Your task to perform on an android device: manage bookmarks in the chrome app Image 0: 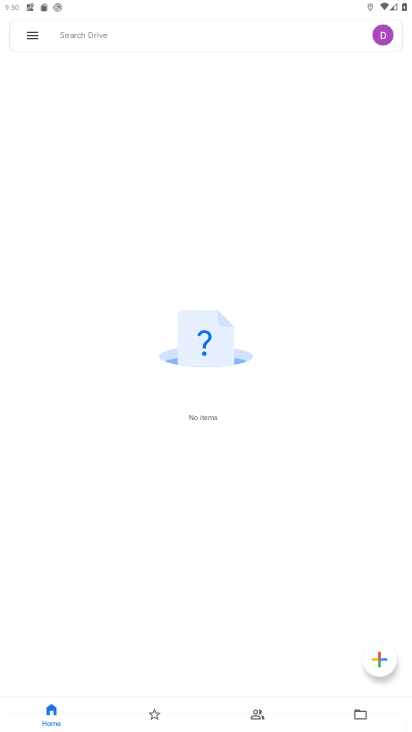
Step 0: press home button
Your task to perform on an android device: manage bookmarks in the chrome app Image 1: 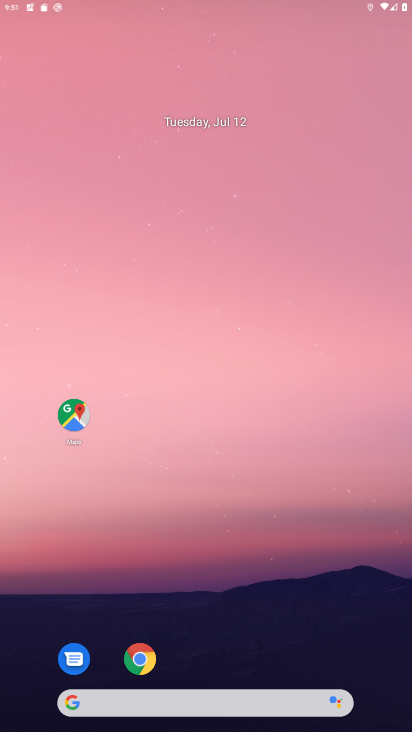
Step 1: drag from (235, 627) to (261, 136)
Your task to perform on an android device: manage bookmarks in the chrome app Image 2: 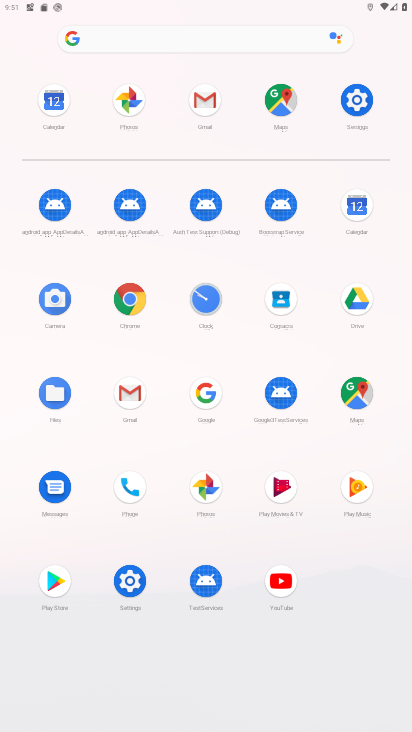
Step 2: click (133, 308)
Your task to perform on an android device: manage bookmarks in the chrome app Image 3: 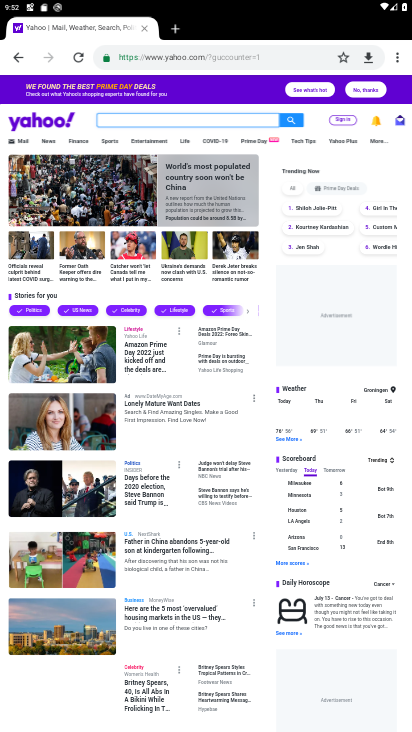
Step 3: drag from (396, 57) to (311, 120)
Your task to perform on an android device: manage bookmarks in the chrome app Image 4: 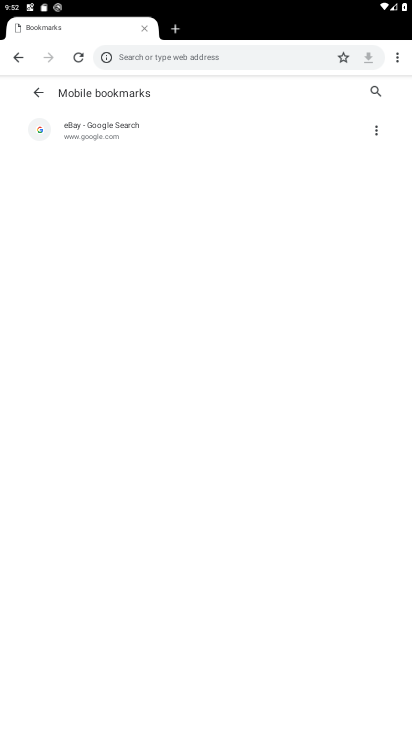
Step 4: click (378, 131)
Your task to perform on an android device: manage bookmarks in the chrome app Image 5: 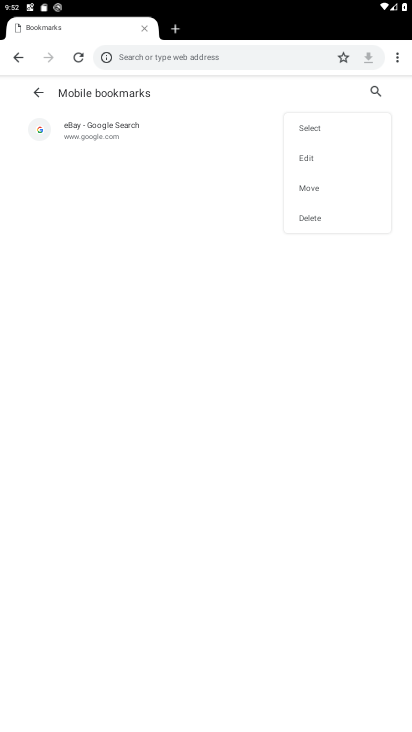
Step 5: click (301, 221)
Your task to perform on an android device: manage bookmarks in the chrome app Image 6: 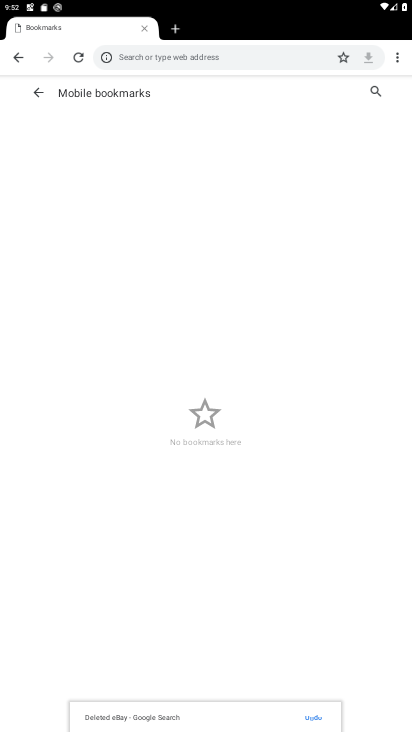
Step 6: task complete